Your task to perform on an android device: Open my contact list Image 0: 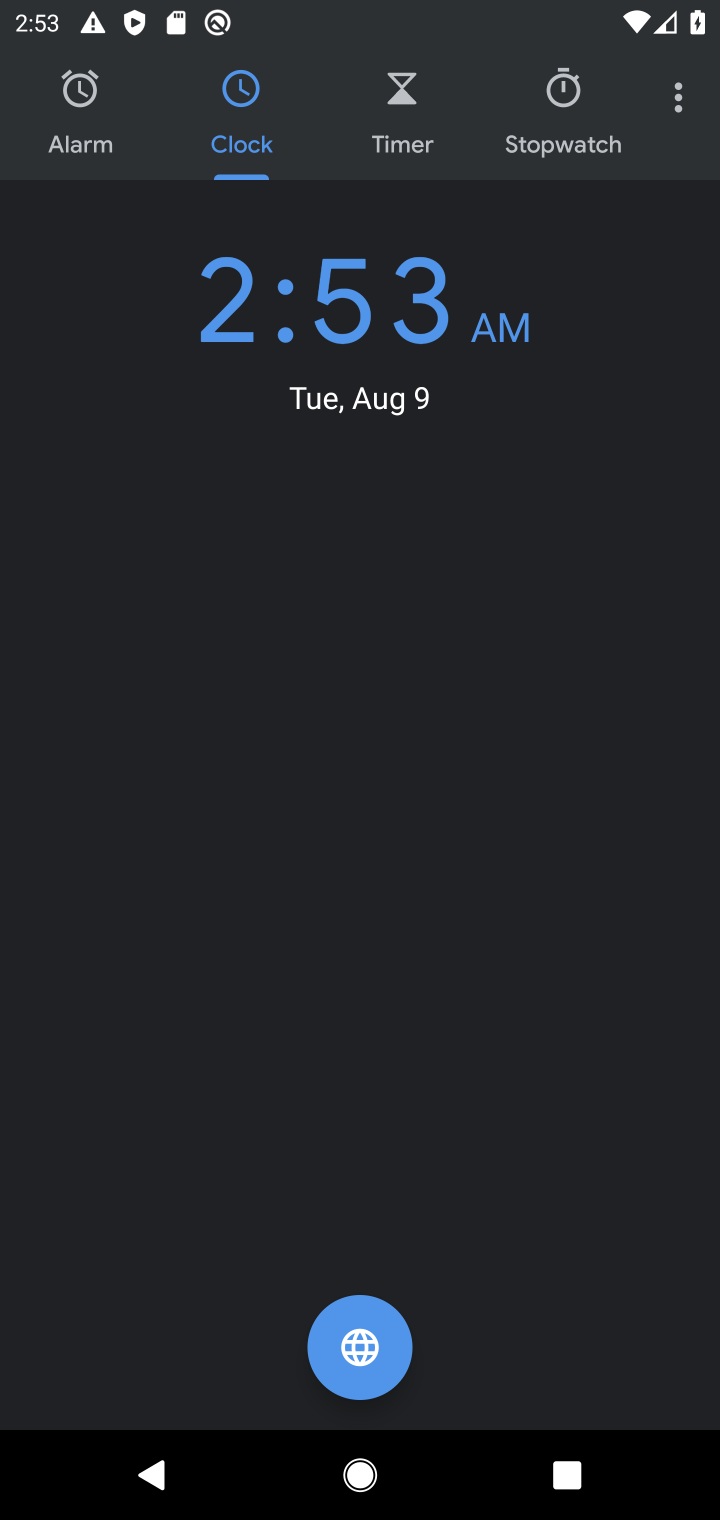
Step 0: press home button
Your task to perform on an android device: Open my contact list Image 1: 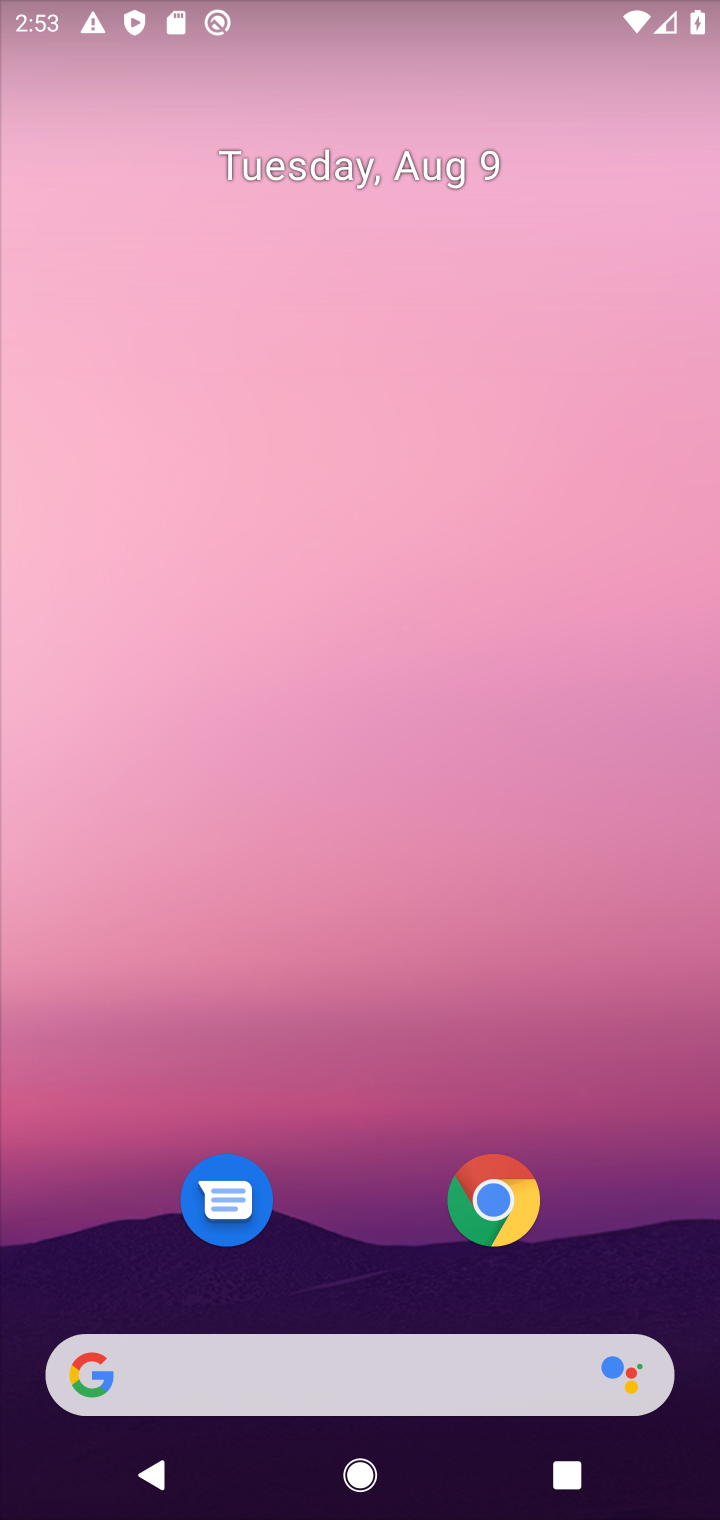
Step 1: drag from (396, 1266) to (413, 156)
Your task to perform on an android device: Open my contact list Image 2: 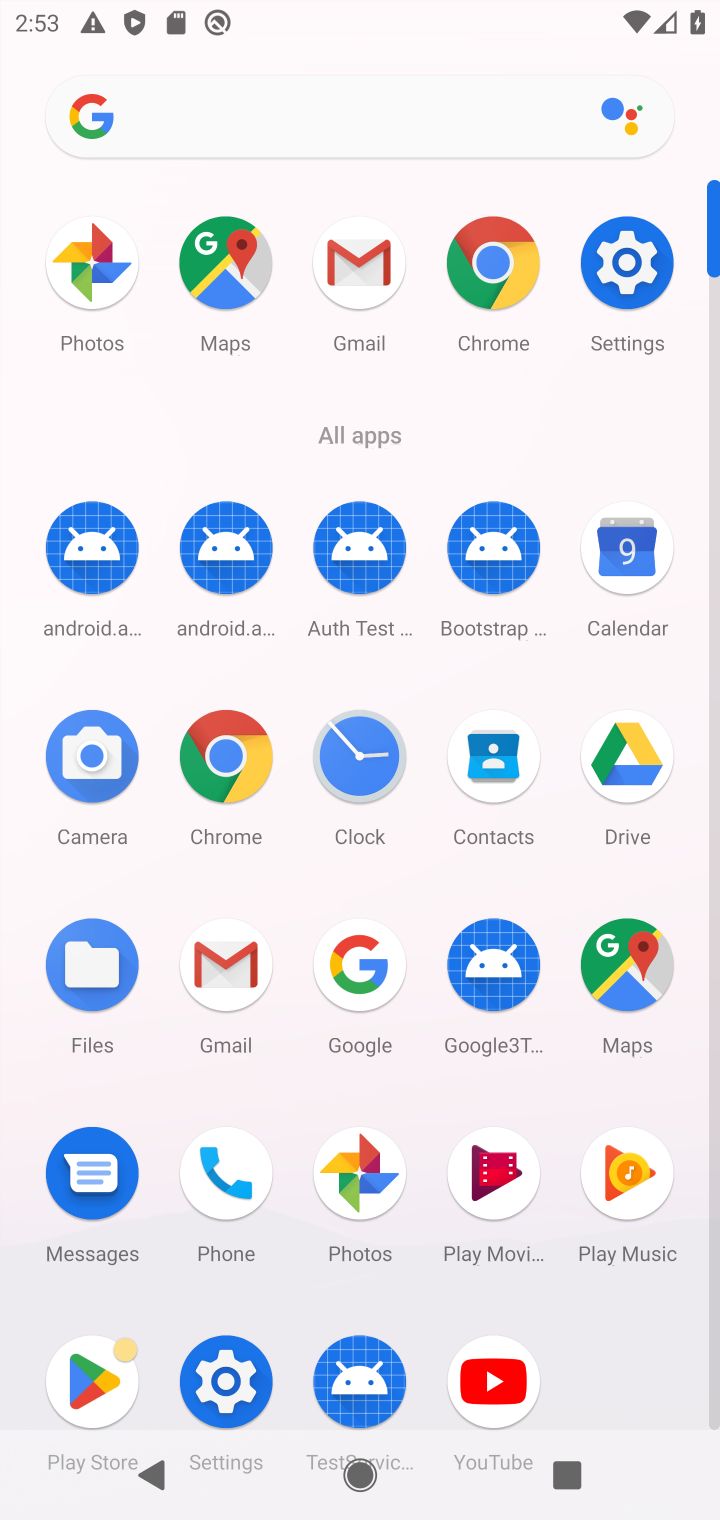
Step 2: click (465, 799)
Your task to perform on an android device: Open my contact list Image 3: 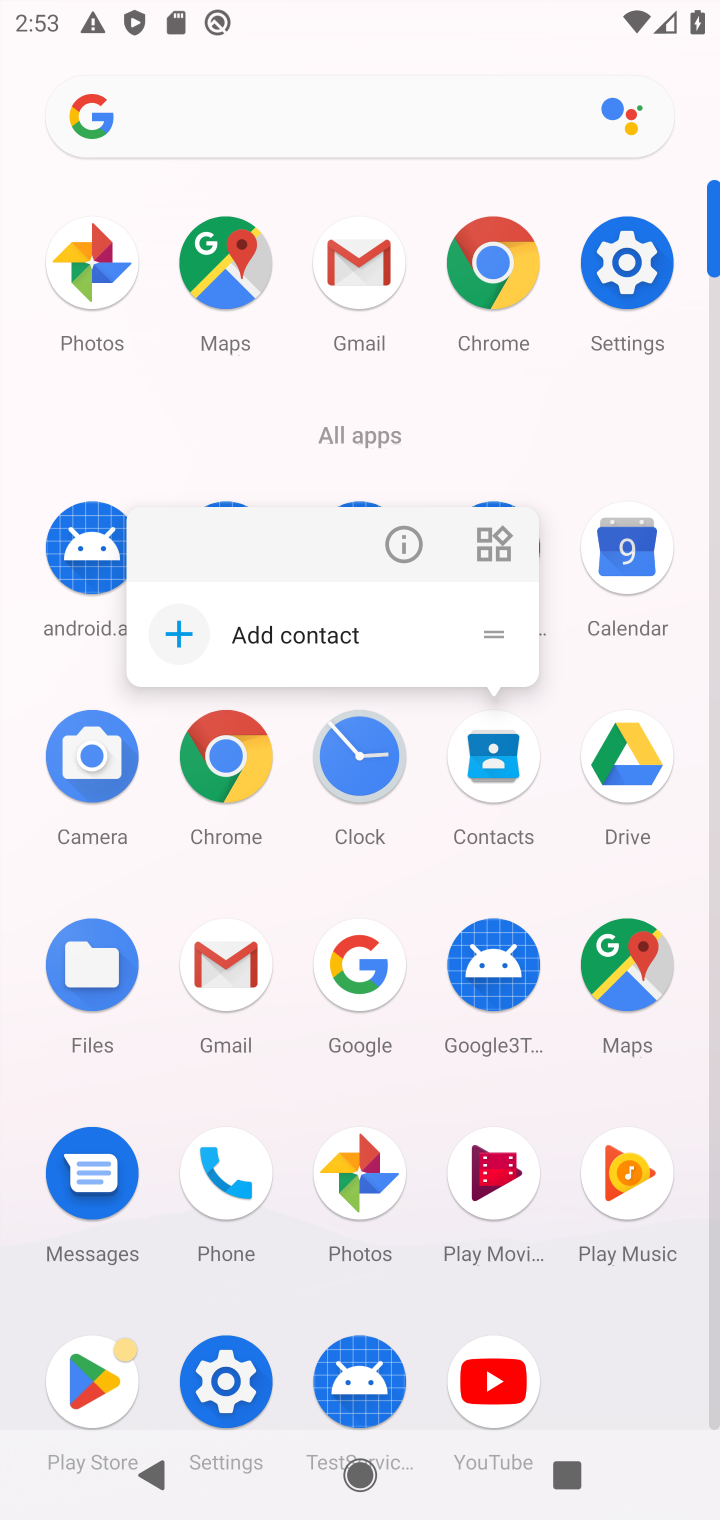
Step 3: click (465, 799)
Your task to perform on an android device: Open my contact list Image 4: 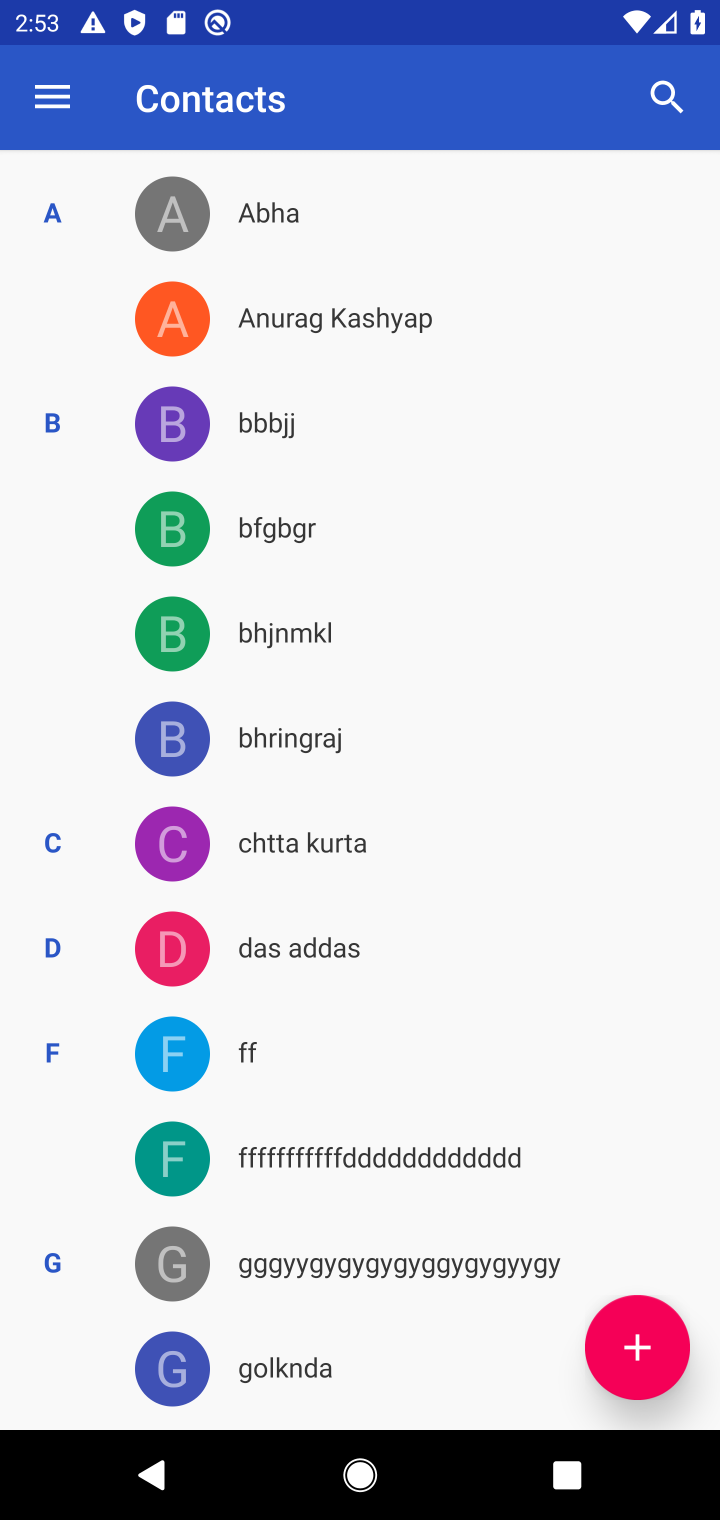
Step 4: task complete